Your task to perform on an android device: Show me productivity apps on the Play Store Image 0: 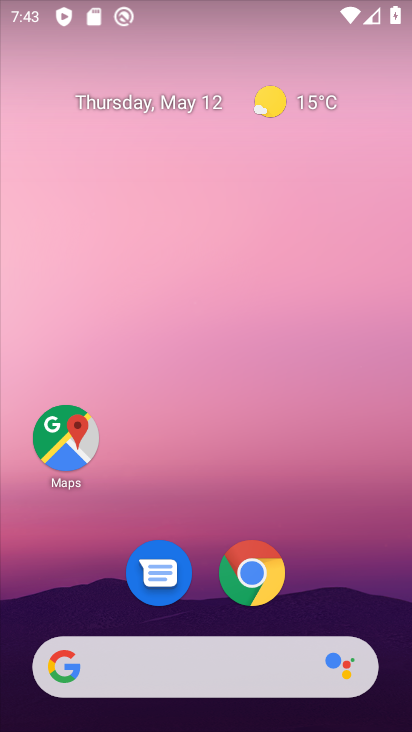
Step 0: drag from (331, 543) to (186, 20)
Your task to perform on an android device: Show me productivity apps on the Play Store Image 1: 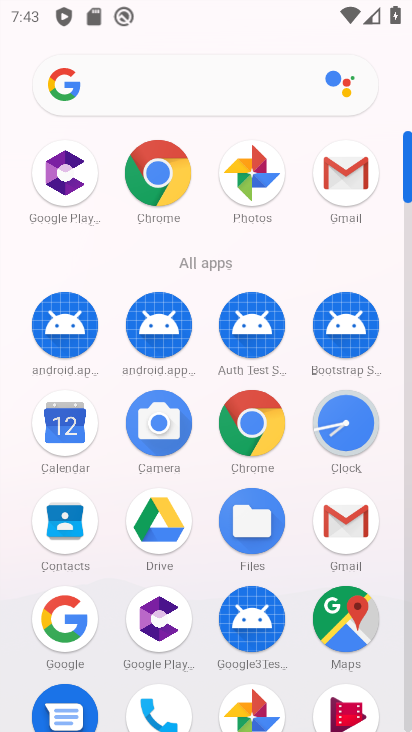
Step 1: drag from (197, 577) to (165, 311)
Your task to perform on an android device: Show me productivity apps on the Play Store Image 2: 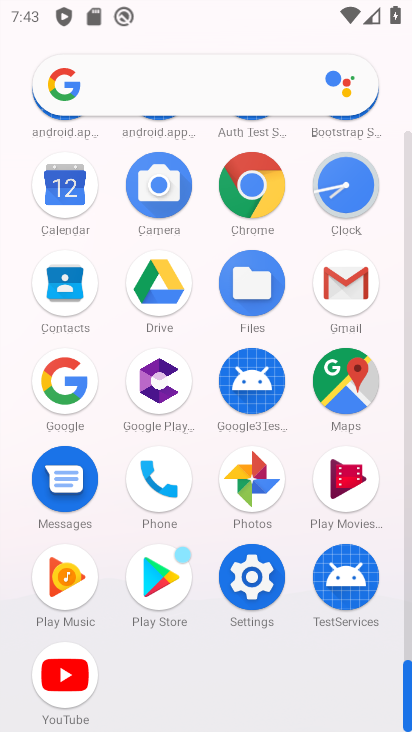
Step 2: click (150, 583)
Your task to perform on an android device: Show me productivity apps on the Play Store Image 3: 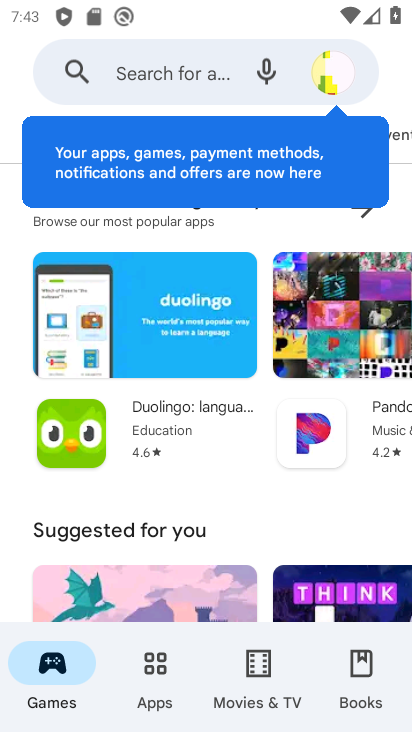
Step 3: click (149, 674)
Your task to perform on an android device: Show me productivity apps on the Play Store Image 4: 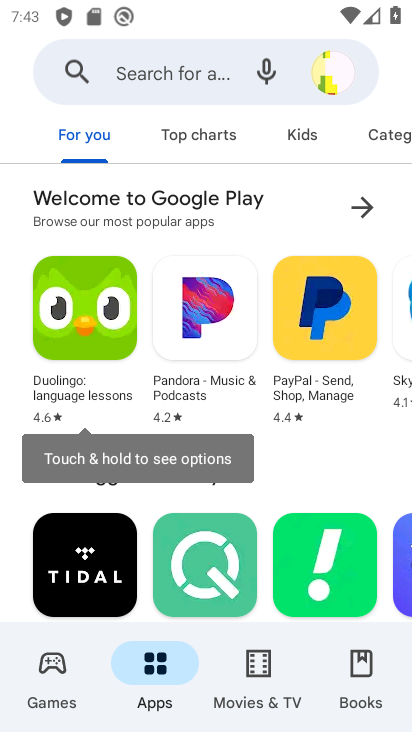
Step 4: task complete